Your task to perform on an android device: Open the web browser Image 0: 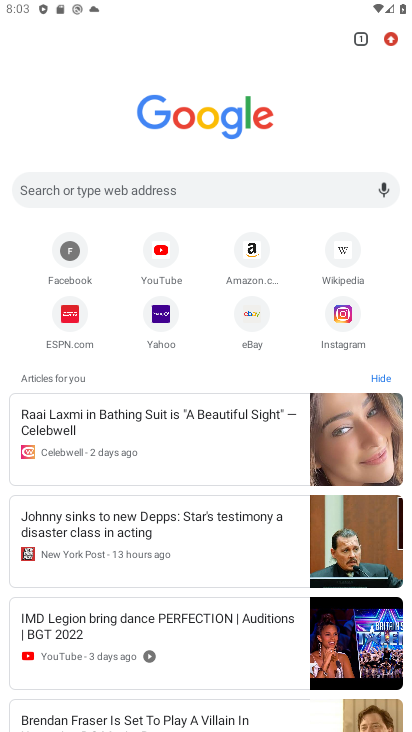
Step 0: click (280, 184)
Your task to perform on an android device: Open the web browser Image 1: 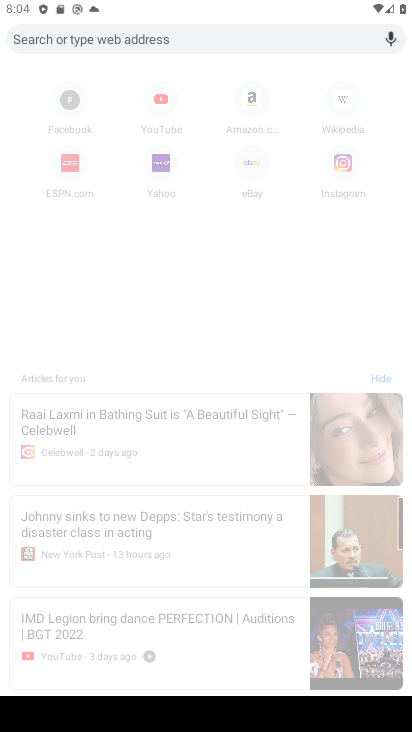
Step 1: type "web browser"
Your task to perform on an android device: Open the web browser Image 2: 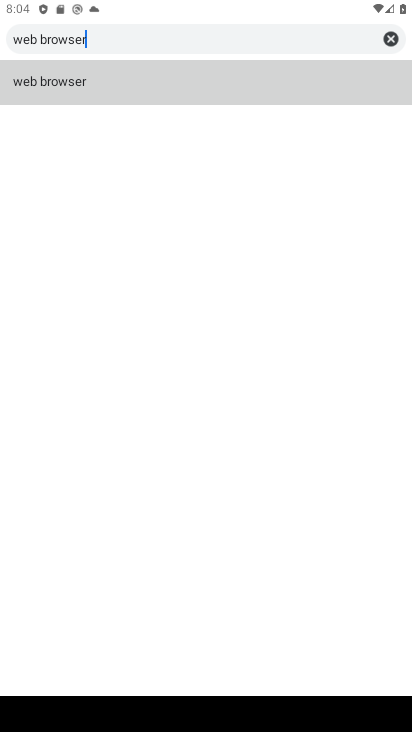
Step 2: click (134, 78)
Your task to perform on an android device: Open the web browser Image 3: 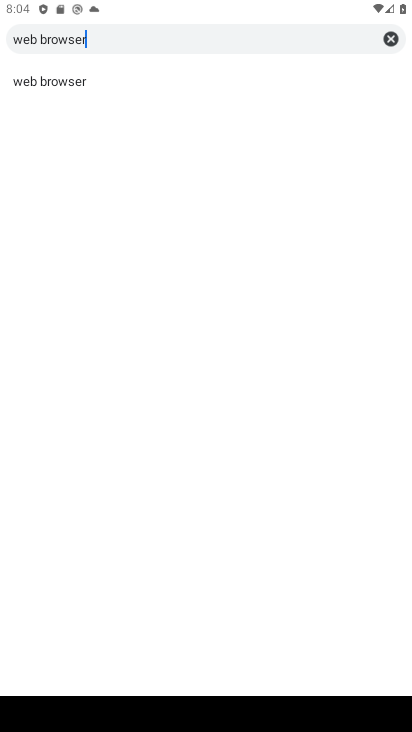
Step 3: click (26, 83)
Your task to perform on an android device: Open the web browser Image 4: 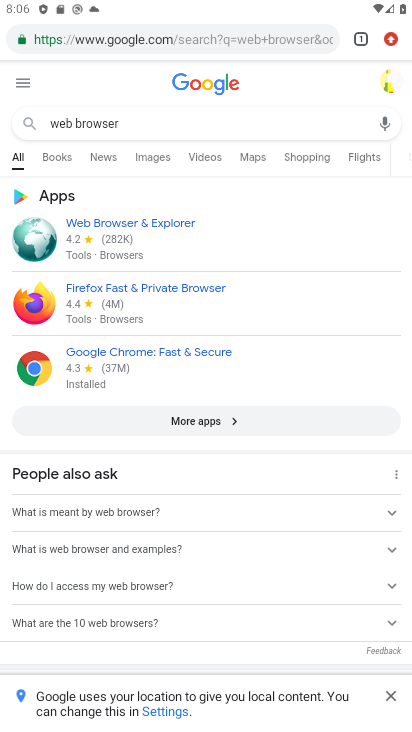
Step 4: task complete